Your task to perform on an android device: open app "Google Drive" (install if not already installed) Image 0: 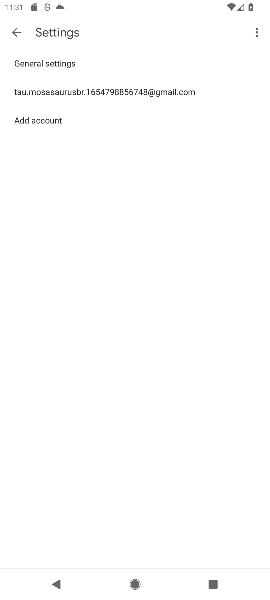
Step 0: press home button
Your task to perform on an android device: open app "Google Drive" (install if not already installed) Image 1: 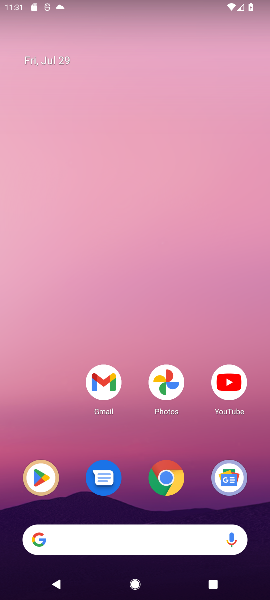
Step 1: click (40, 472)
Your task to perform on an android device: open app "Google Drive" (install if not already installed) Image 2: 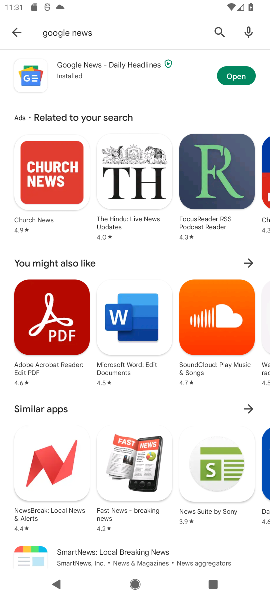
Step 2: click (12, 31)
Your task to perform on an android device: open app "Google Drive" (install if not already installed) Image 3: 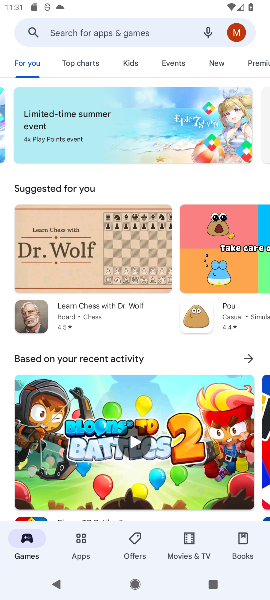
Step 3: click (48, 26)
Your task to perform on an android device: open app "Google Drive" (install if not already installed) Image 4: 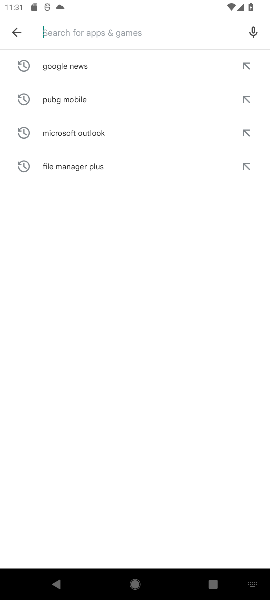
Step 4: type "Google Drive"
Your task to perform on an android device: open app "Google Drive" (install if not already installed) Image 5: 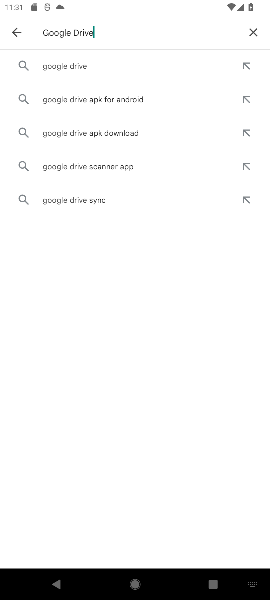
Step 5: click (71, 64)
Your task to perform on an android device: open app "Google Drive" (install if not already installed) Image 6: 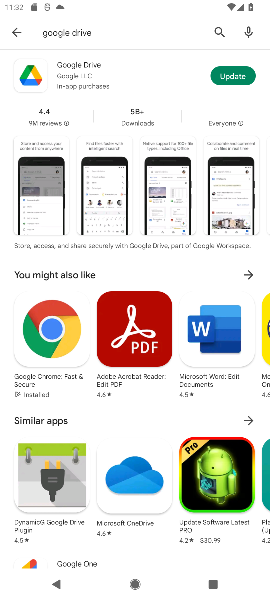
Step 6: click (82, 74)
Your task to perform on an android device: open app "Google Drive" (install if not already installed) Image 7: 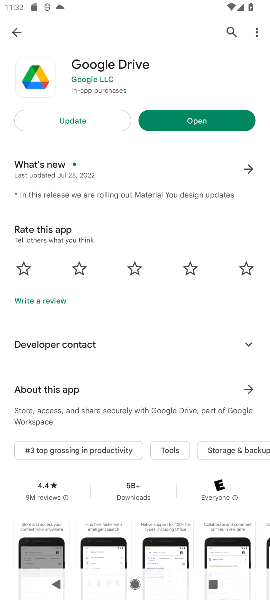
Step 7: click (208, 118)
Your task to perform on an android device: open app "Google Drive" (install if not already installed) Image 8: 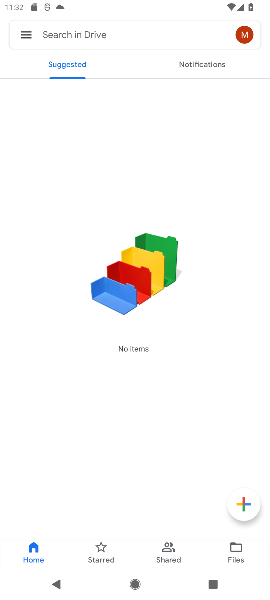
Step 8: task complete